Your task to perform on an android device: Open Youtube and go to the subscriptions tab Image 0: 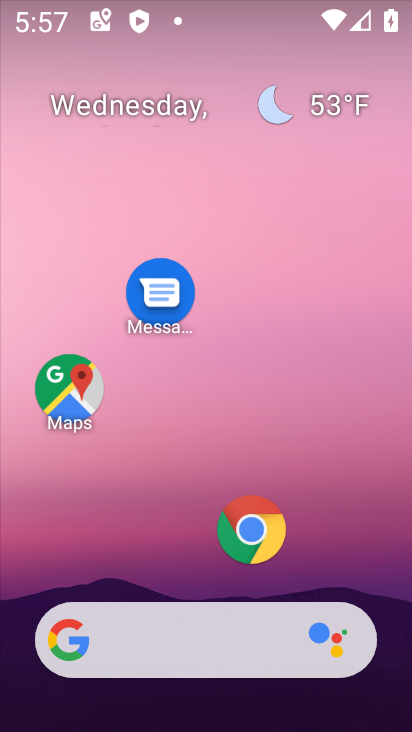
Step 0: drag from (223, 572) to (215, 164)
Your task to perform on an android device: Open Youtube and go to the subscriptions tab Image 1: 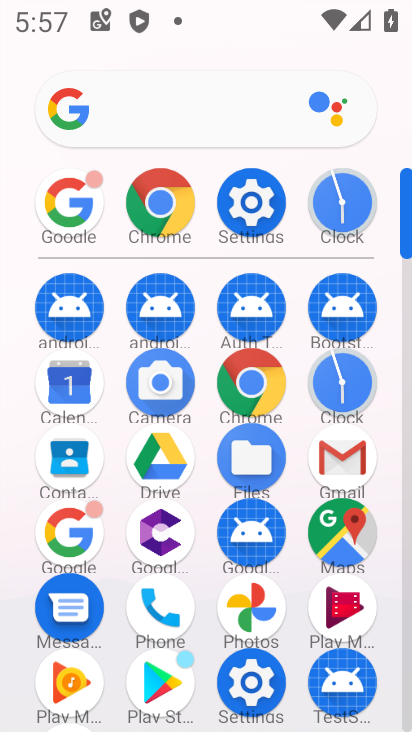
Step 1: drag from (205, 651) to (205, 433)
Your task to perform on an android device: Open Youtube and go to the subscriptions tab Image 2: 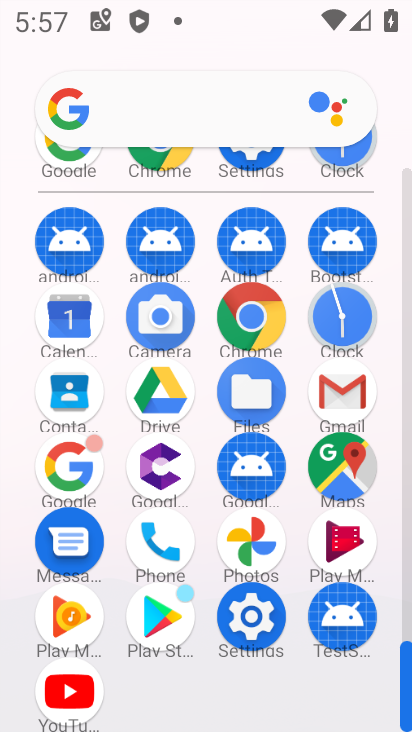
Step 2: click (57, 688)
Your task to perform on an android device: Open Youtube and go to the subscriptions tab Image 3: 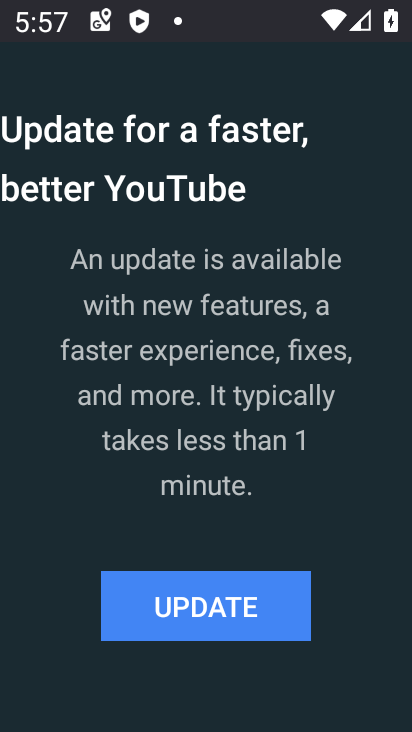
Step 3: click (193, 616)
Your task to perform on an android device: Open Youtube and go to the subscriptions tab Image 4: 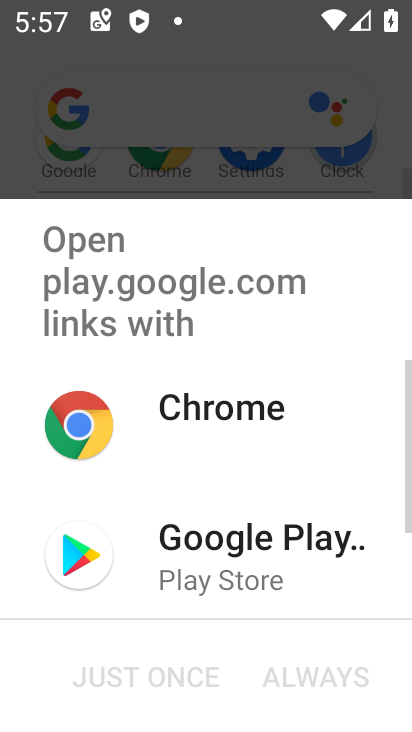
Step 4: click (235, 575)
Your task to perform on an android device: Open Youtube and go to the subscriptions tab Image 5: 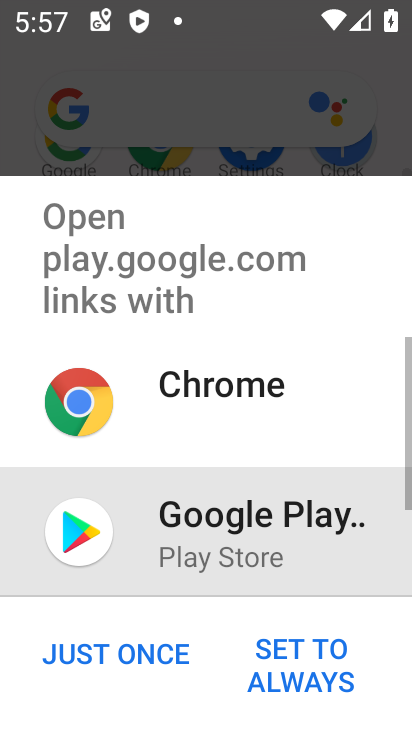
Step 5: click (294, 662)
Your task to perform on an android device: Open Youtube and go to the subscriptions tab Image 6: 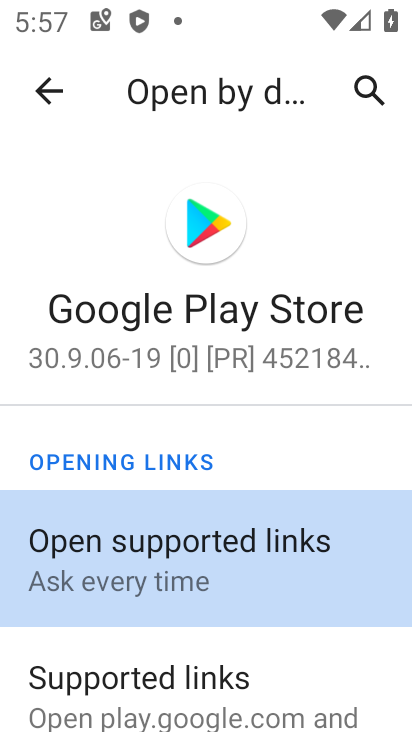
Step 6: click (179, 547)
Your task to perform on an android device: Open Youtube and go to the subscriptions tab Image 7: 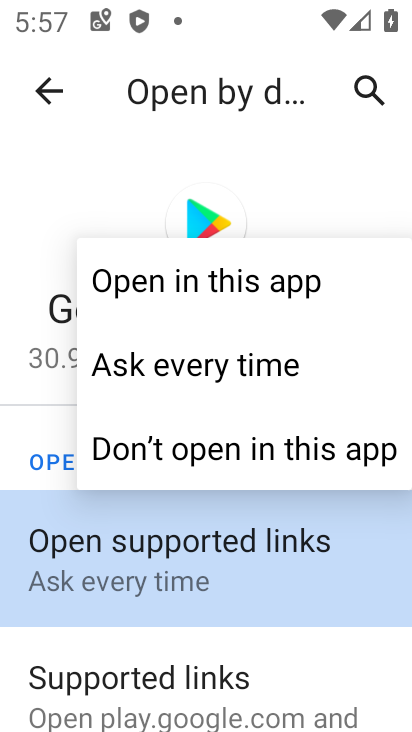
Step 7: click (154, 289)
Your task to perform on an android device: Open Youtube and go to the subscriptions tab Image 8: 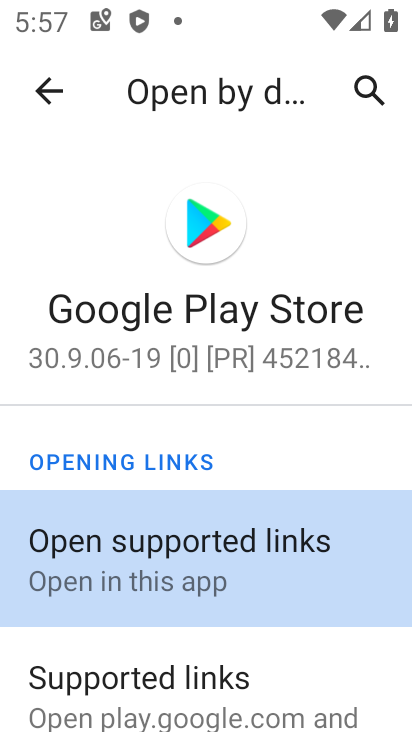
Step 8: click (41, 88)
Your task to perform on an android device: Open Youtube and go to the subscriptions tab Image 9: 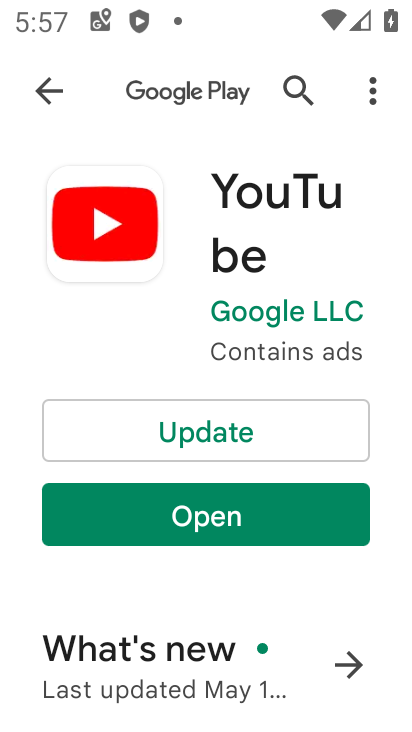
Step 9: click (220, 447)
Your task to perform on an android device: Open Youtube and go to the subscriptions tab Image 10: 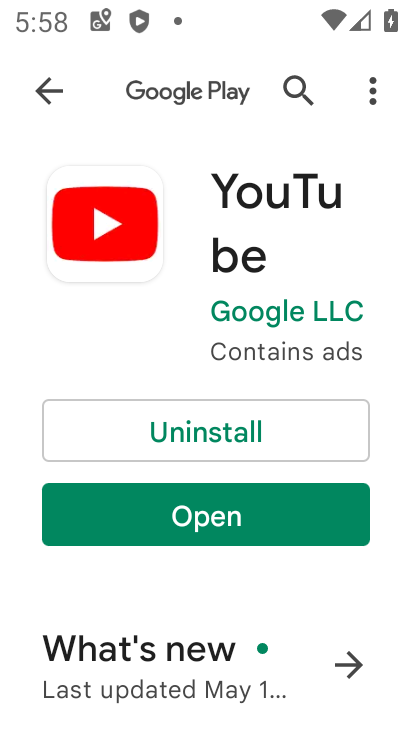
Step 10: click (219, 509)
Your task to perform on an android device: Open Youtube and go to the subscriptions tab Image 11: 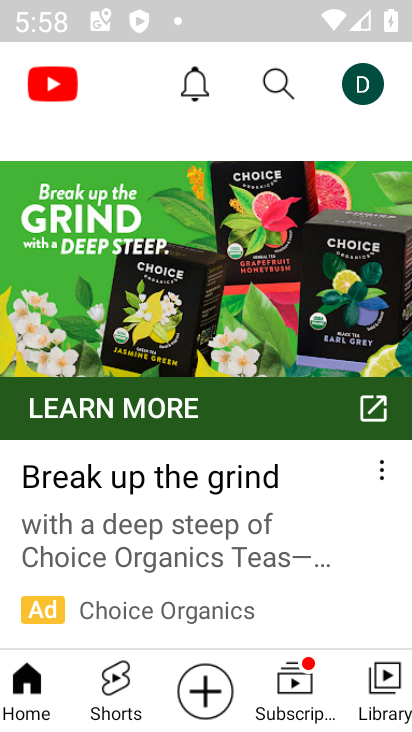
Step 11: click (290, 710)
Your task to perform on an android device: Open Youtube and go to the subscriptions tab Image 12: 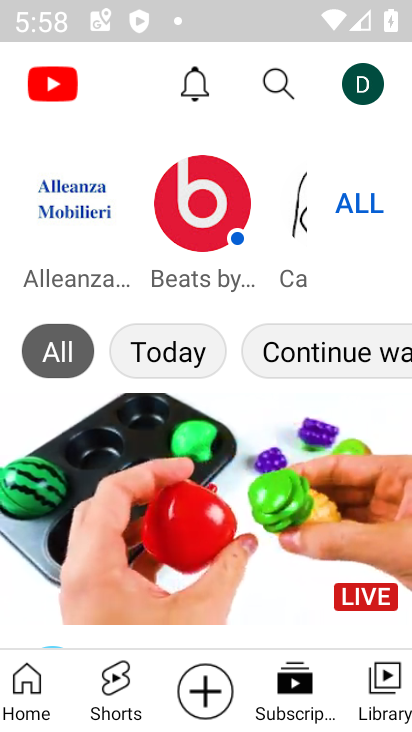
Step 12: task complete